Your task to perform on an android device: Show the shopping cart on target. Add "logitech g502" to the cart on target Image 0: 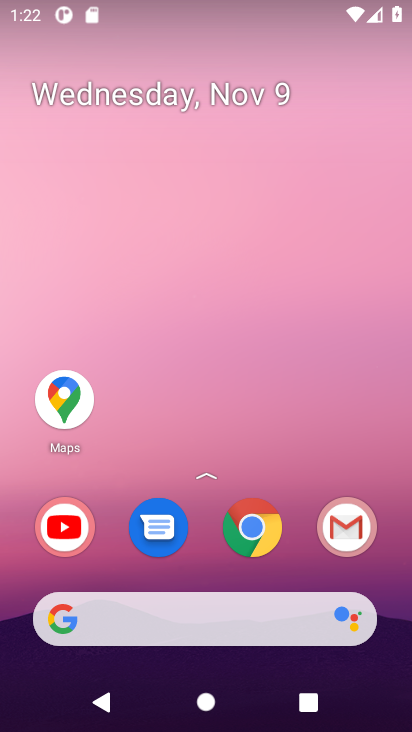
Step 0: press home button
Your task to perform on an android device: Show the shopping cart on target. Add "logitech g502" to the cart on target Image 1: 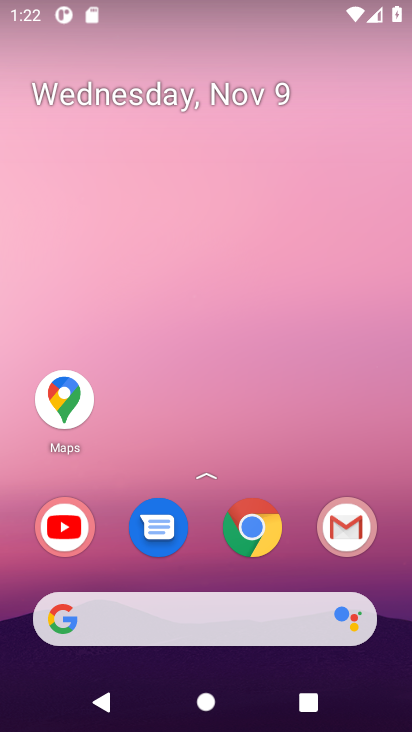
Step 1: click (249, 530)
Your task to perform on an android device: Show the shopping cart on target. Add "logitech g502" to the cart on target Image 2: 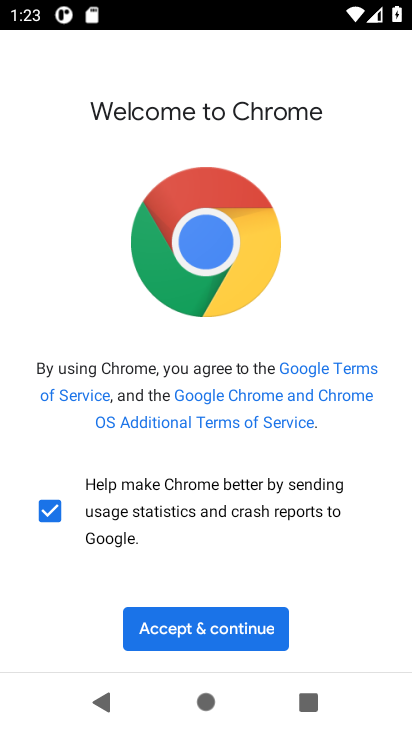
Step 2: click (210, 630)
Your task to perform on an android device: Show the shopping cart on target. Add "logitech g502" to the cart on target Image 3: 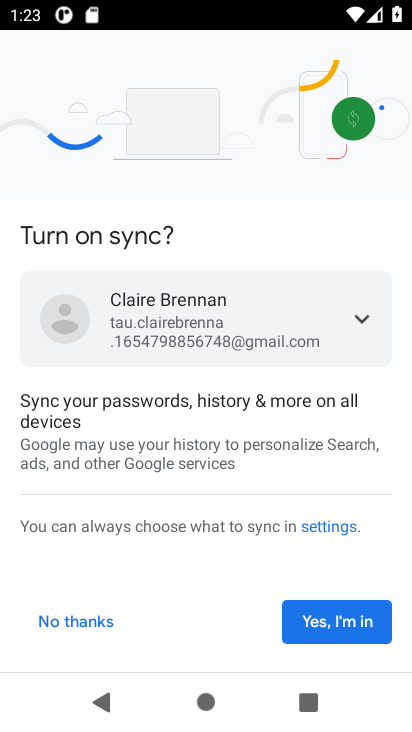
Step 3: click (322, 624)
Your task to perform on an android device: Show the shopping cart on target. Add "logitech g502" to the cart on target Image 4: 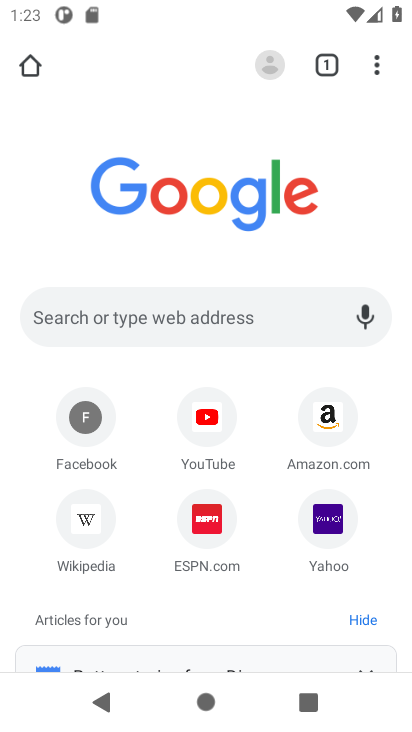
Step 4: click (206, 325)
Your task to perform on an android device: Show the shopping cart on target. Add "logitech g502" to the cart on target Image 5: 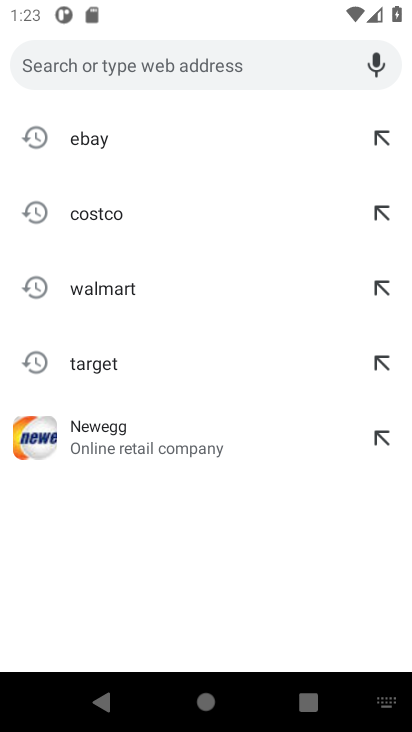
Step 5: type "target"
Your task to perform on an android device: Show the shopping cart on target. Add "logitech g502" to the cart on target Image 6: 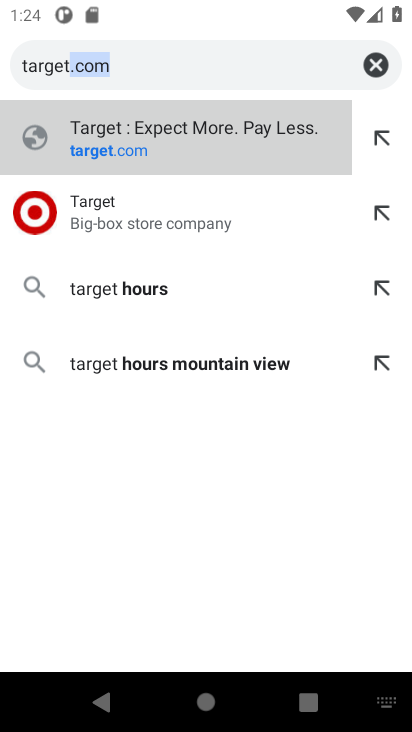
Step 6: click (145, 234)
Your task to perform on an android device: Show the shopping cart on target. Add "logitech g502" to the cart on target Image 7: 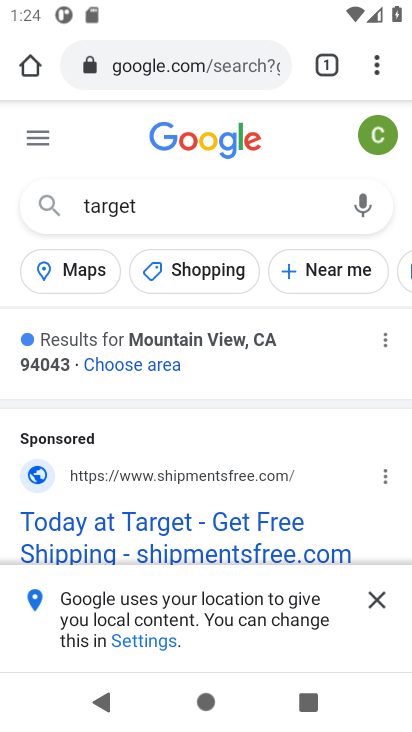
Step 7: drag from (213, 515) to (208, 189)
Your task to perform on an android device: Show the shopping cart on target. Add "logitech g502" to the cart on target Image 8: 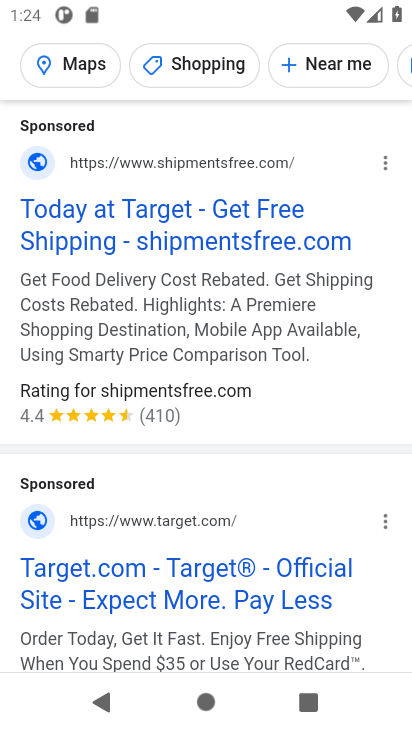
Step 8: drag from (246, 579) to (217, 256)
Your task to perform on an android device: Show the shopping cart on target. Add "logitech g502" to the cart on target Image 9: 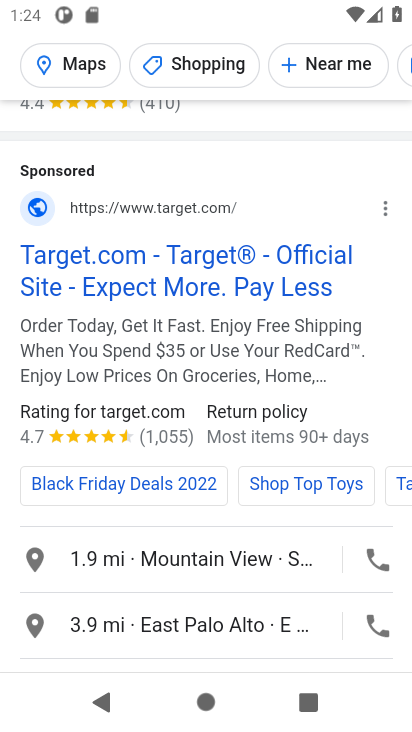
Step 9: drag from (270, 507) to (234, 188)
Your task to perform on an android device: Show the shopping cart on target. Add "logitech g502" to the cart on target Image 10: 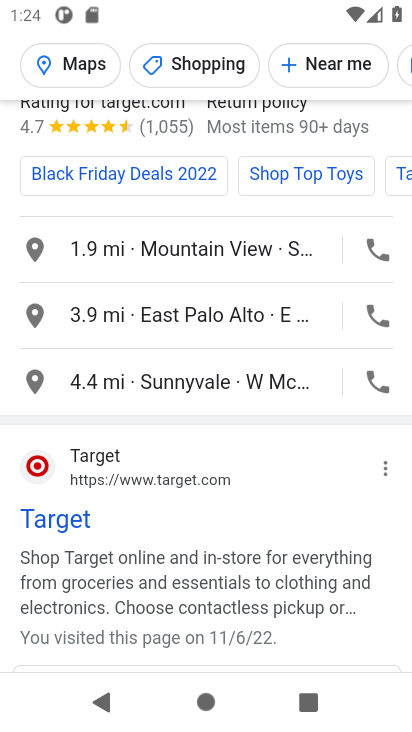
Step 10: click (138, 488)
Your task to perform on an android device: Show the shopping cart on target. Add "logitech g502" to the cart on target Image 11: 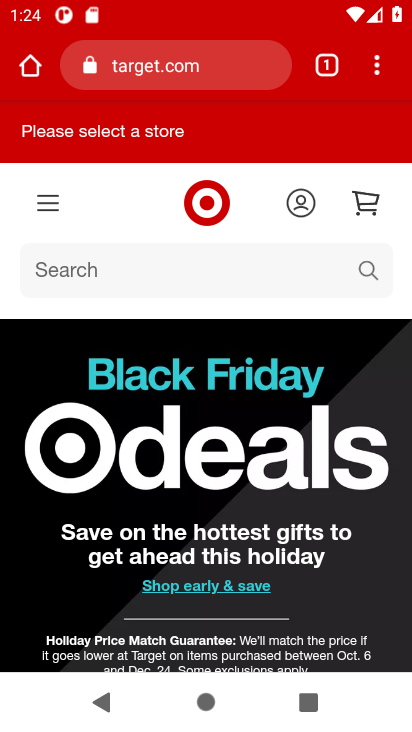
Step 11: click (356, 204)
Your task to perform on an android device: Show the shopping cart on target. Add "logitech g502" to the cart on target Image 12: 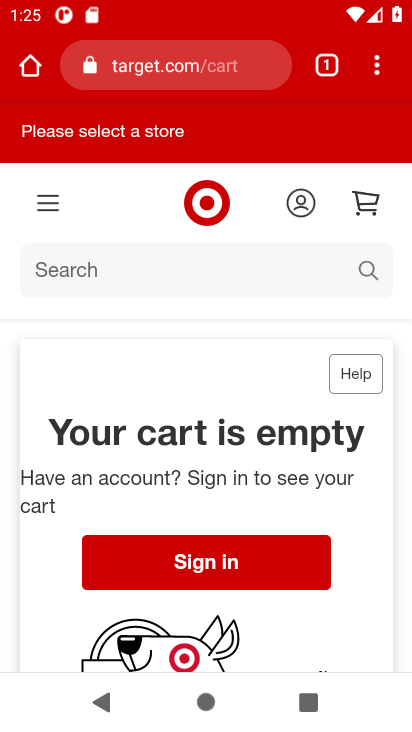
Step 12: click (364, 197)
Your task to perform on an android device: Show the shopping cart on target. Add "logitech g502" to the cart on target Image 13: 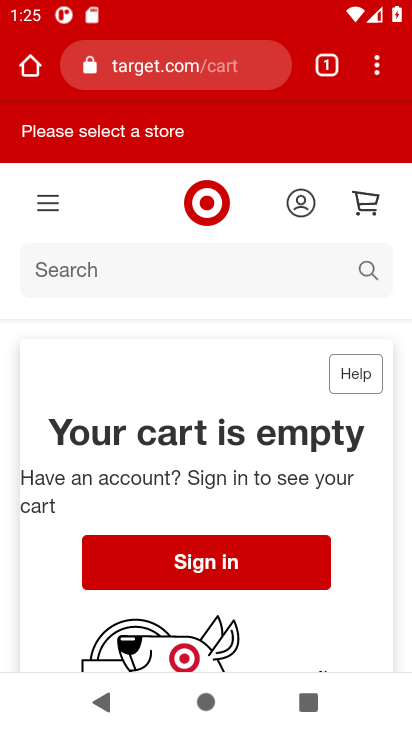
Step 13: click (138, 265)
Your task to perform on an android device: Show the shopping cart on target. Add "logitech g502" to the cart on target Image 14: 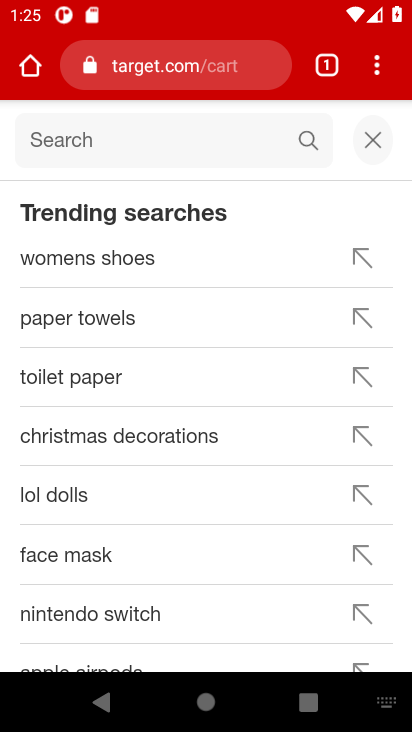
Step 14: type "logitech g502"
Your task to perform on an android device: Show the shopping cart on target. Add "logitech g502" to the cart on target Image 15: 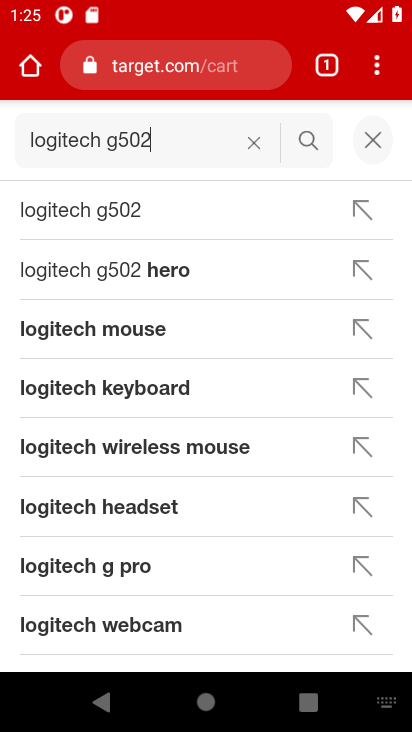
Step 15: click (121, 207)
Your task to perform on an android device: Show the shopping cart on target. Add "logitech g502" to the cart on target Image 16: 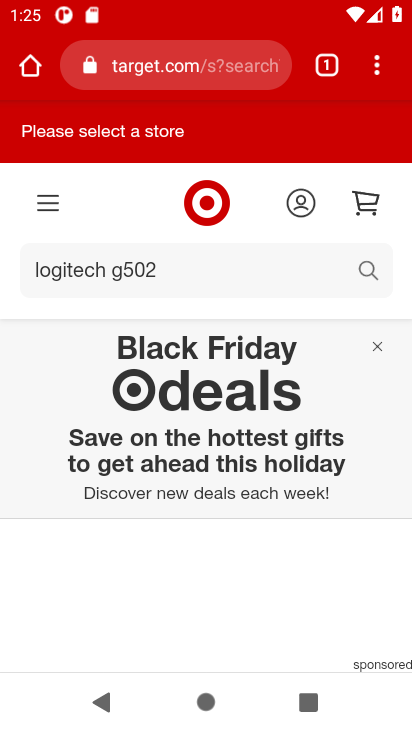
Step 16: drag from (216, 596) to (281, 302)
Your task to perform on an android device: Show the shopping cart on target. Add "logitech g502" to the cart on target Image 17: 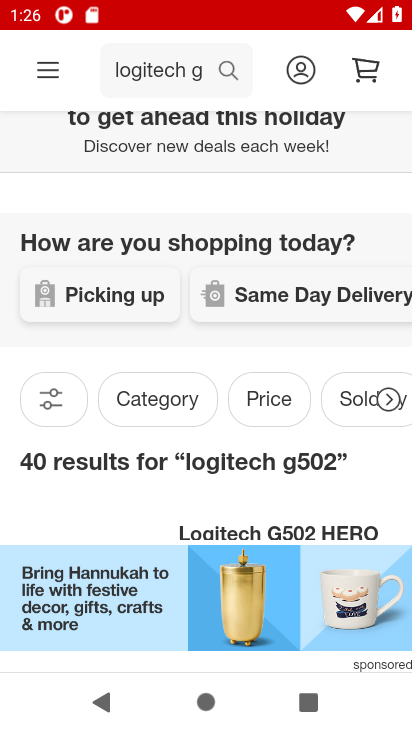
Step 17: drag from (211, 487) to (273, 266)
Your task to perform on an android device: Show the shopping cart on target. Add "logitech g502" to the cart on target Image 18: 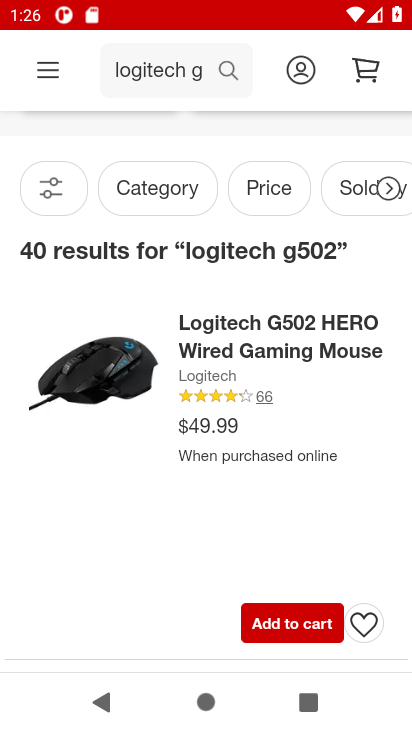
Step 18: click (292, 629)
Your task to perform on an android device: Show the shopping cart on target. Add "logitech g502" to the cart on target Image 19: 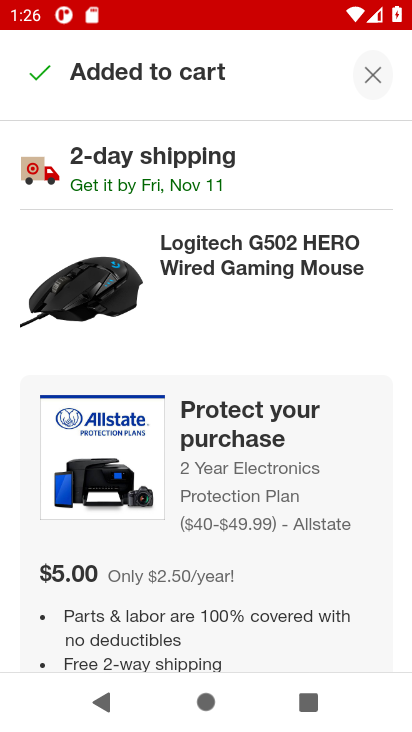
Step 19: drag from (246, 582) to (267, 252)
Your task to perform on an android device: Show the shopping cart on target. Add "logitech g502" to the cart on target Image 20: 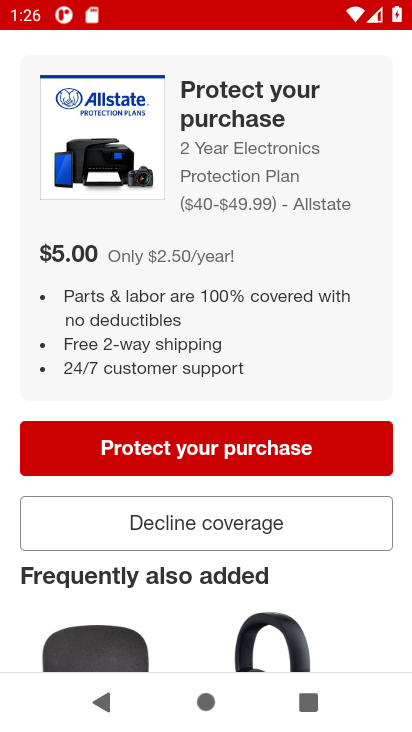
Step 20: click (187, 518)
Your task to perform on an android device: Show the shopping cart on target. Add "logitech g502" to the cart on target Image 21: 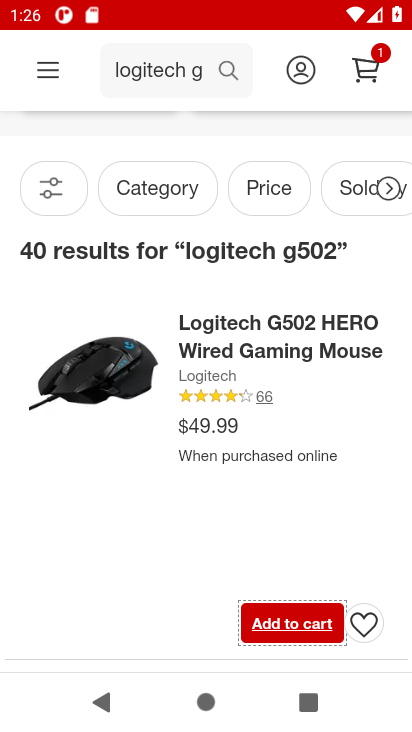
Step 21: task complete